Your task to perform on an android device: turn off notifications in google photos Image 0: 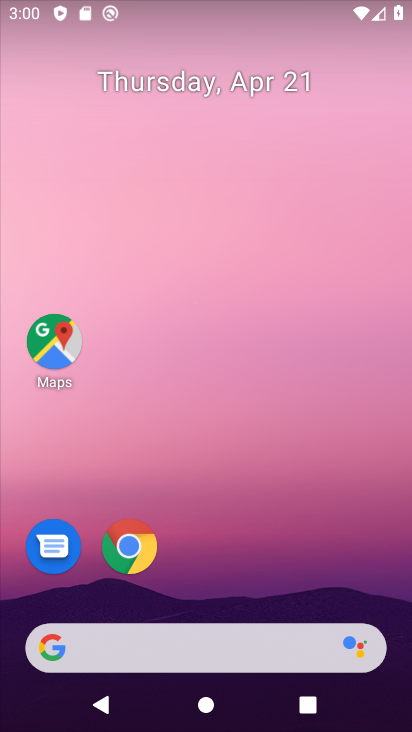
Step 0: drag from (269, 479) to (269, 0)
Your task to perform on an android device: turn off notifications in google photos Image 1: 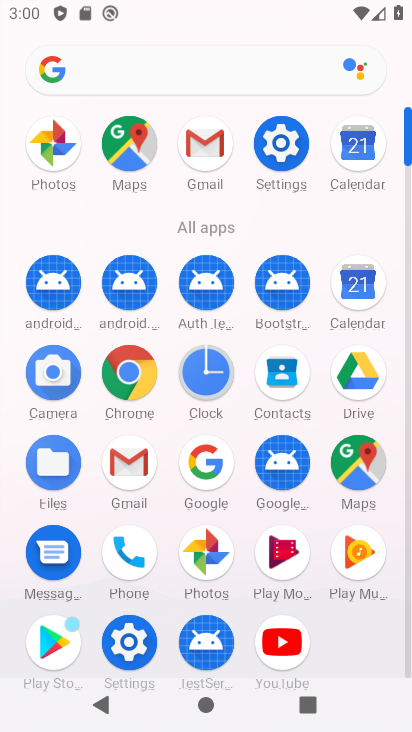
Step 1: click (212, 545)
Your task to perform on an android device: turn off notifications in google photos Image 2: 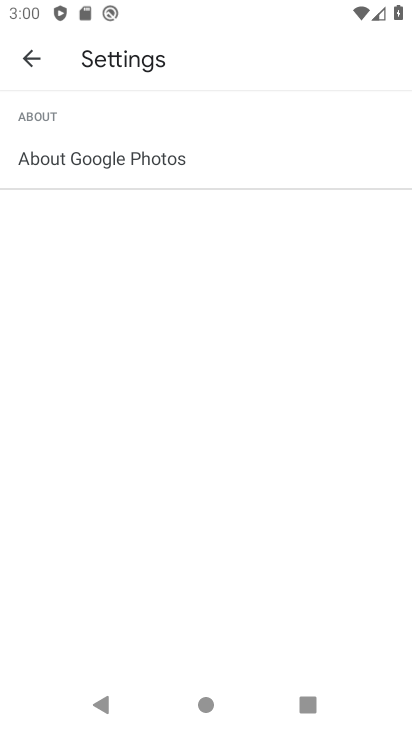
Step 2: press back button
Your task to perform on an android device: turn off notifications in google photos Image 3: 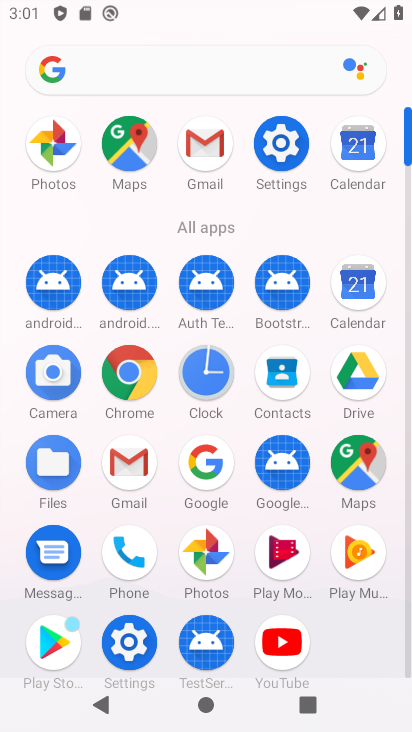
Step 3: click (213, 555)
Your task to perform on an android device: turn off notifications in google photos Image 4: 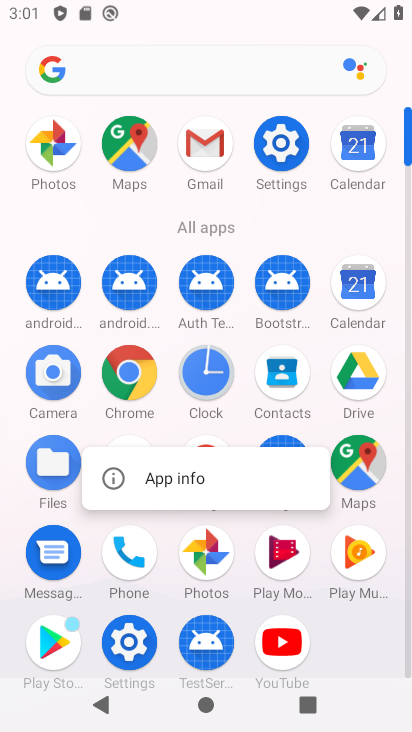
Step 4: click (213, 550)
Your task to perform on an android device: turn off notifications in google photos Image 5: 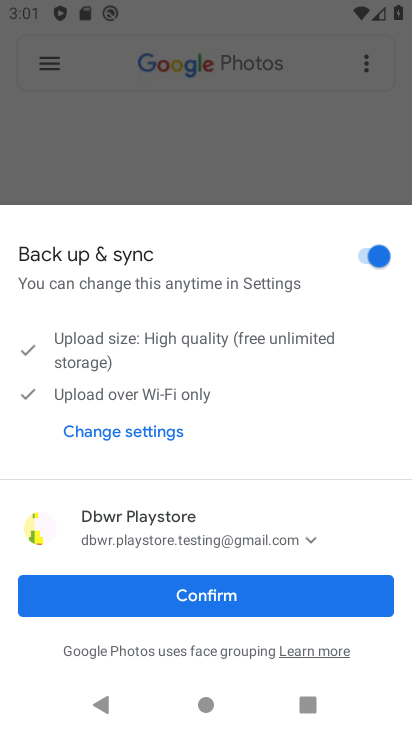
Step 5: click (215, 600)
Your task to perform on an android device: turn off notifications in google photos Image 6: 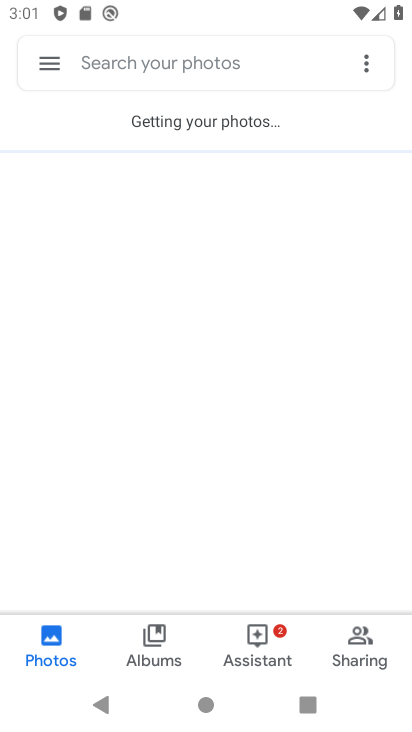
Step 6: click (55, 61)
Your task to perform on an android device: turn off notifications in google photos Image 7: 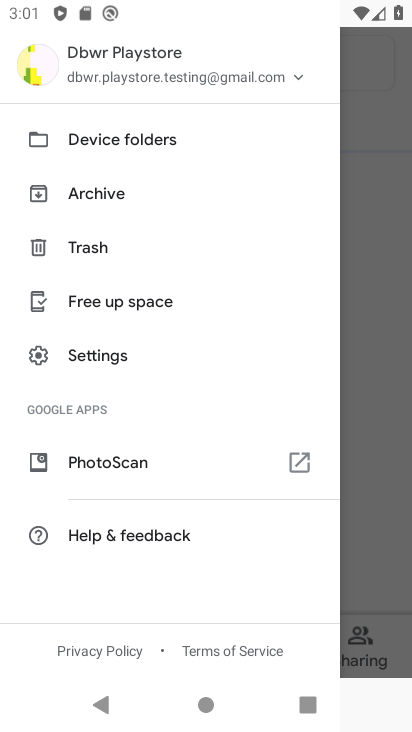
Step 7: click (111, 349)
Your task to perform on an android device: turn off notifications in google photos Image 8: 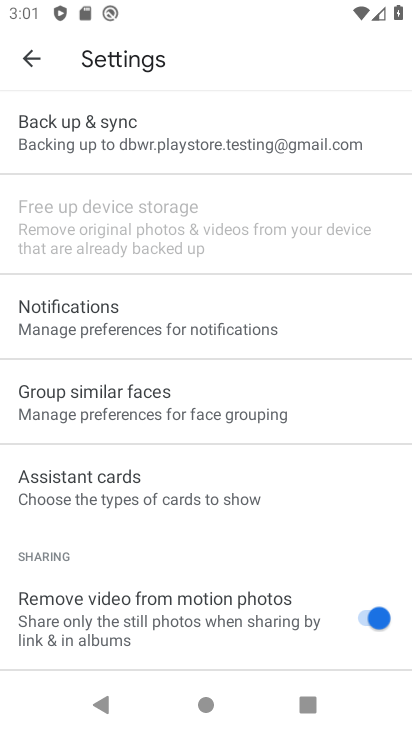
Step 8: click (118, 329)
Your task to perform on an android device: turn off notifications in google photos Image 9: 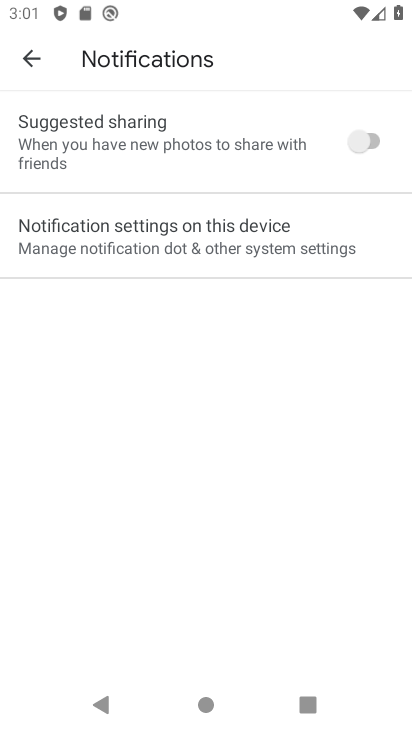
Step 9: click (281, 230)
Your task to perform on an android device: turn off notifications in google photos Image 10: 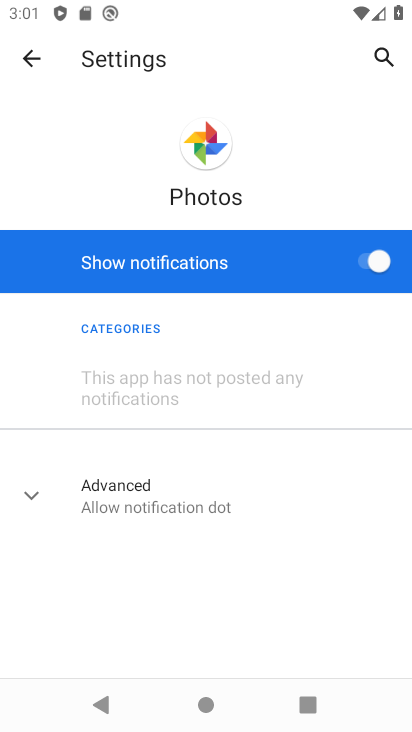
Step 10: click (380, 262)
Your task to perform on an android device: turn off notifications in google photos Image 11: 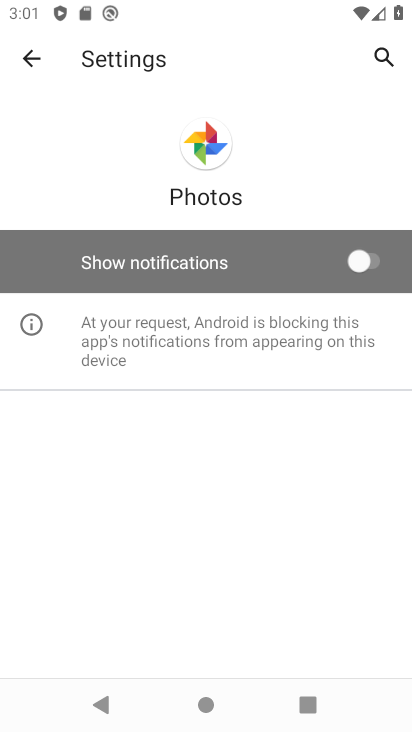
Step 11: task complete